Your task to perform on an android device: open the mobile data screen to see how much data has been used Image 0: 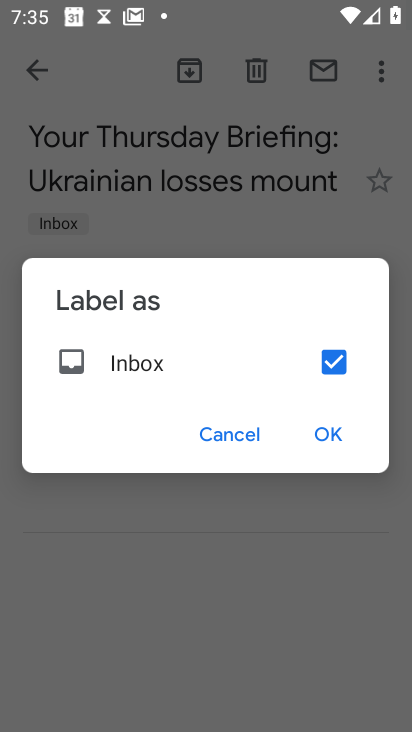
Step 0: press home button
Your task to perform on an android device: open the mobile data screen to see how much data has been used Image 1: 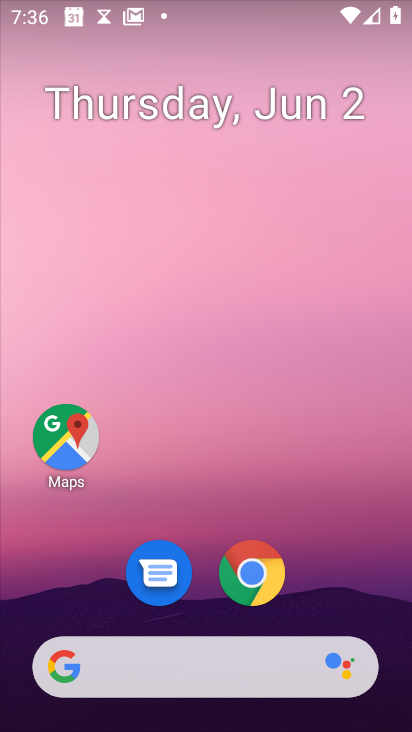
Step 1: drag from (210, 663) to (382, 105)
Your task to perform on an android device: open the mobile data screen to see how much data has been used Image 2: 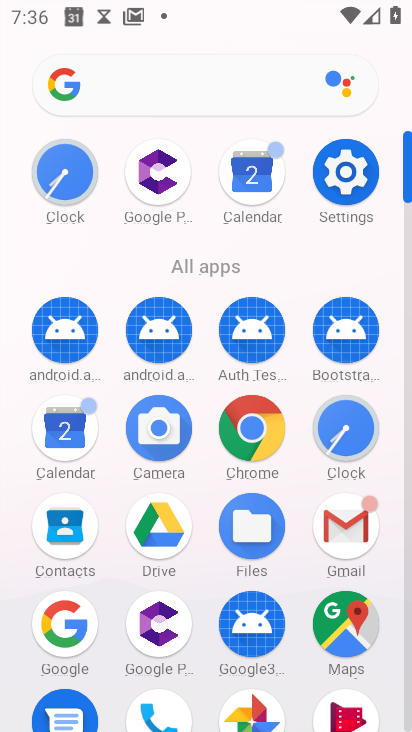
Step 2: click (362, 187)
Your task to perform on an android device: open the mobile data screen to see how much data has been used Image 3: 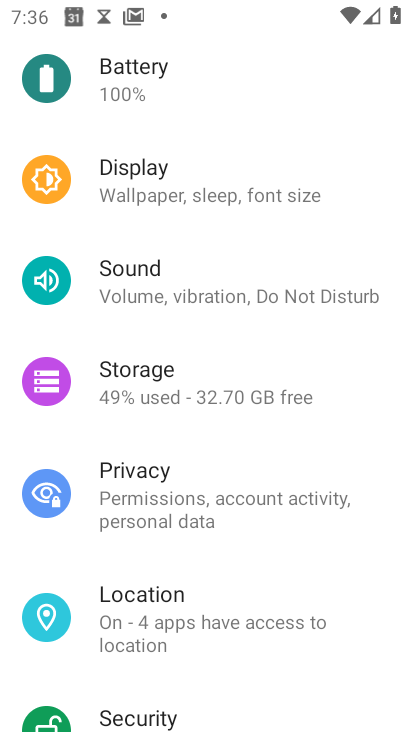
Step 3: drag from (342, 138) to (239, 544)
Your task to perform on an android device: open the mobile data screen to see how much data has been used Image 4: 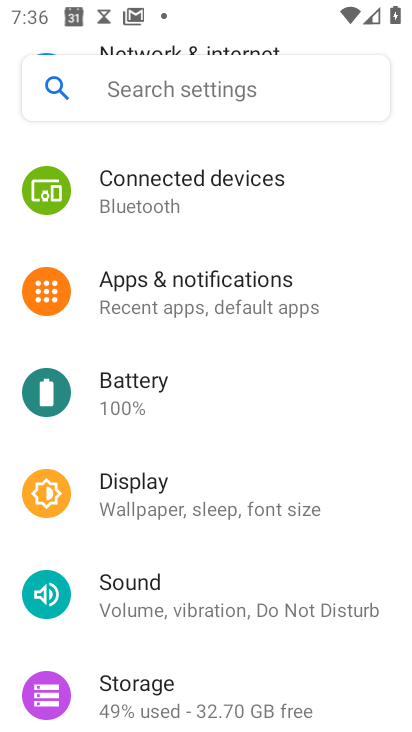
Step 4: drag from (336, 201) to (247, 535)
Your task to perform on an android device: open the mobile data screen to see how much data has been used Image 5: 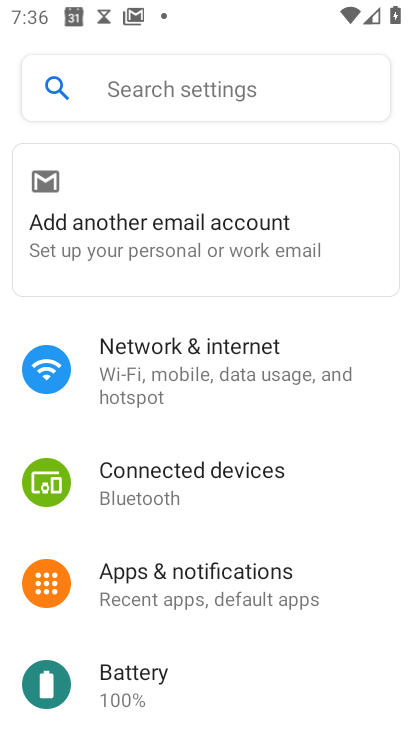
Step 5: click (244, 351)
Your task to perform on an android device: open the mobile data screen to see how much data has been used Image 6: 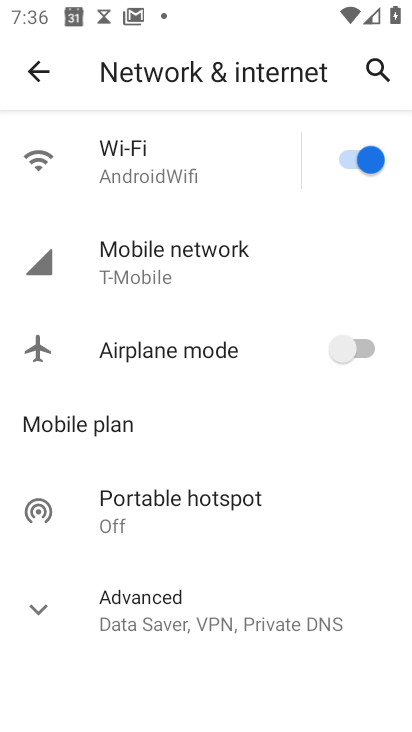
Step 6: click (197, 256)
Your task to perform on an android device: open the mobile data screen to see how much data has been used Image 7: 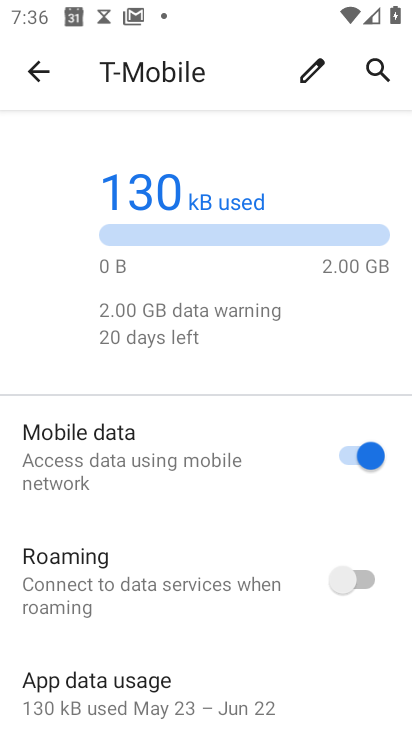
Step 7: task complete